Your task to perform on an android device: toggle improve location accuracy Image 0: 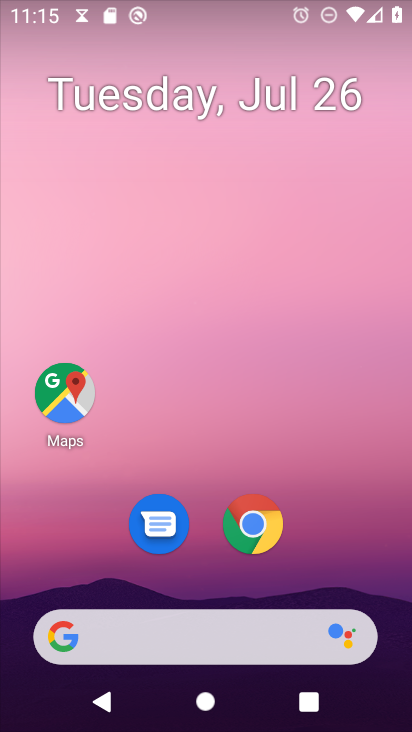
Step 0: press home button
Your task to perform on an android device: toggle improve location accuracy Image 1: 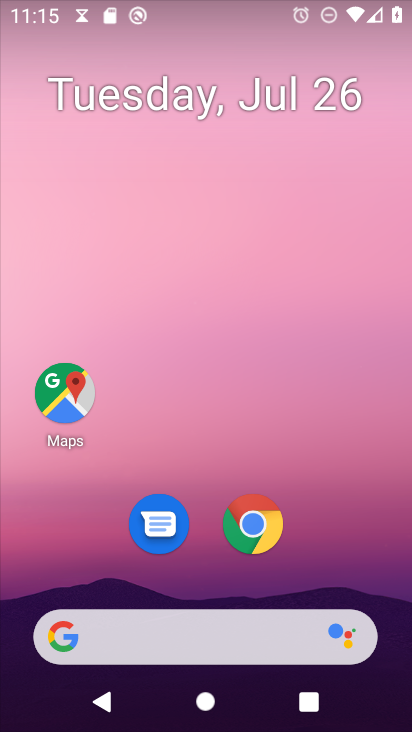
Step 1: drag from (179, 644) to (313, 83)
Your task to perform on an android device: toggle improve location accuracy Image 2: 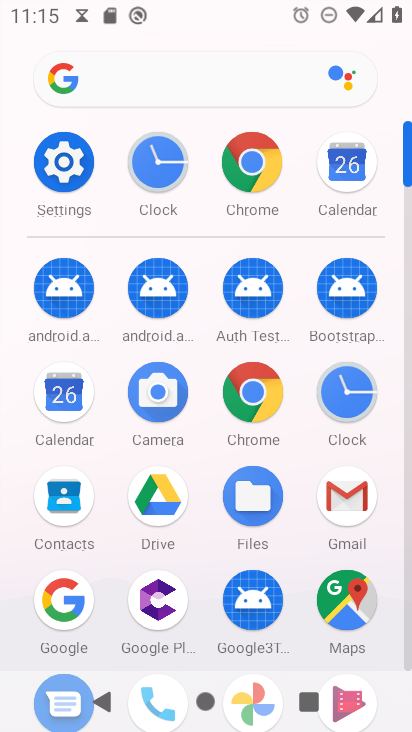
Step 2: click (67, 170)
Your task to perform on an android device: toggle improve location accuracy Image 3: 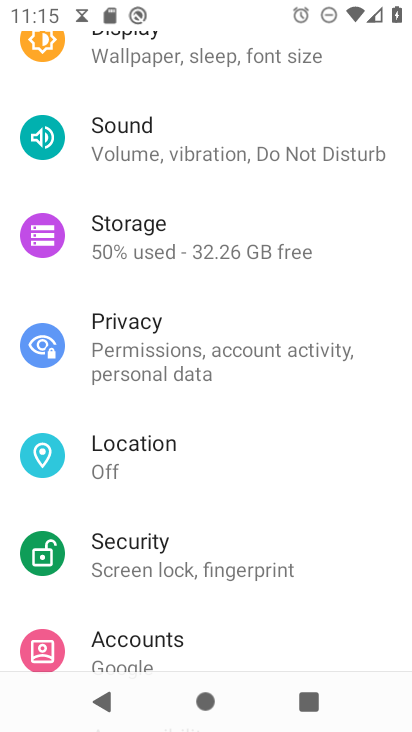
Step 3: click (152, 451)
Your task to perform on an android device: toggle improve location accuracy Image 4: 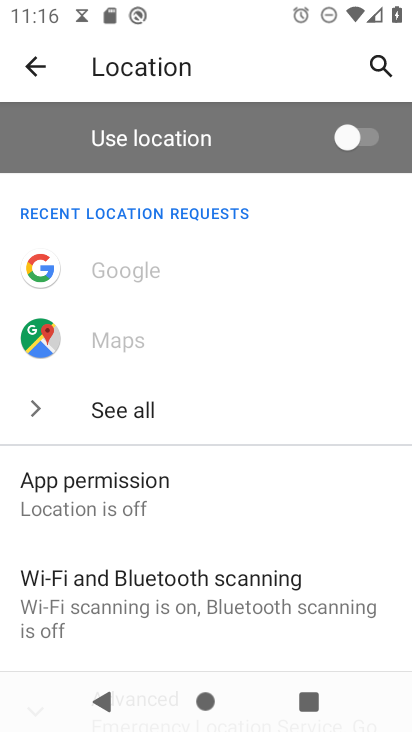
Step 4: drag from (174, 532) to (323, 81)
Your task to perform on an android device: toggle improve location accuracy Image 5: 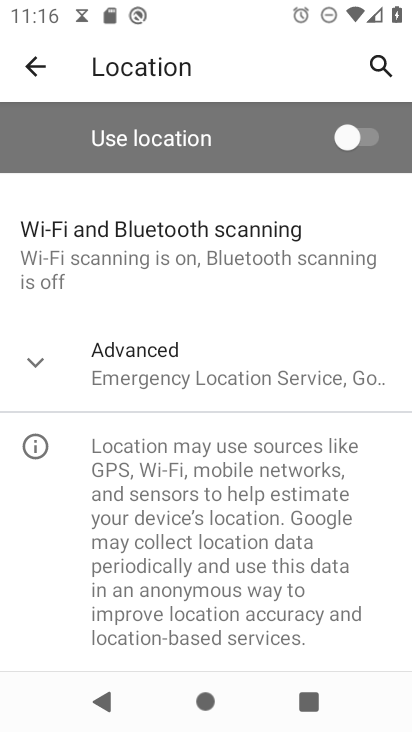
Step 5: click (125, 369)
Your task to perform on an android device: toggle improve location accuracy Image 6: 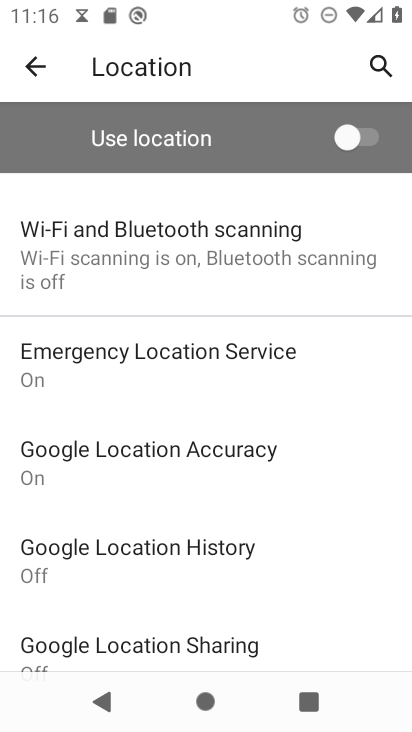
Step 6: click (166, 458)
Your task to perform on an android device: toggle improve location accuracy Image 7: 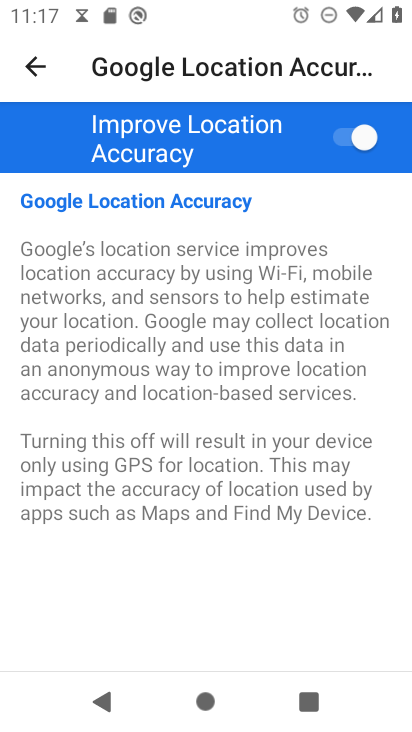
Step 7: click (342, 137)
Your task to perform on an android device: toggle improve location accuracy Image 8: 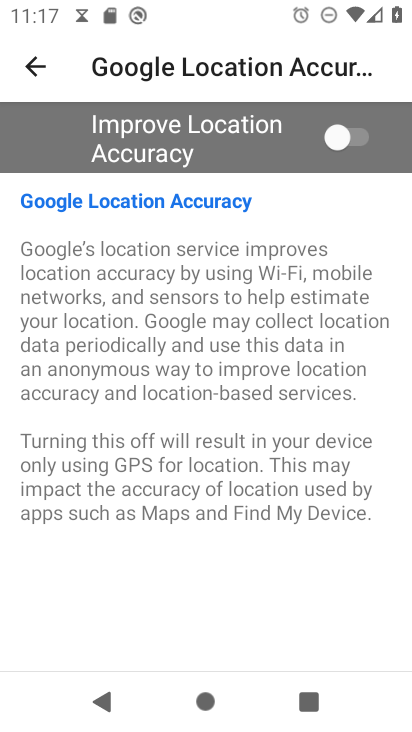
Step 8: task complete